Your task to perform on an android device: open device folders in google photos Image 0: 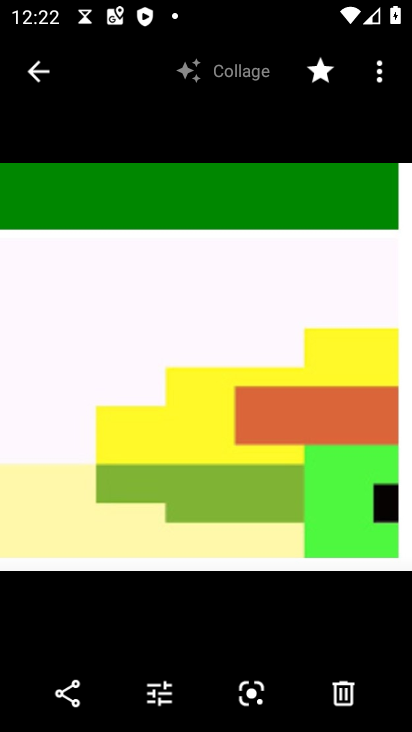
Step 0: task complete